Your task to perform on an android device: turn off smart reply in the gmail app Image 0: 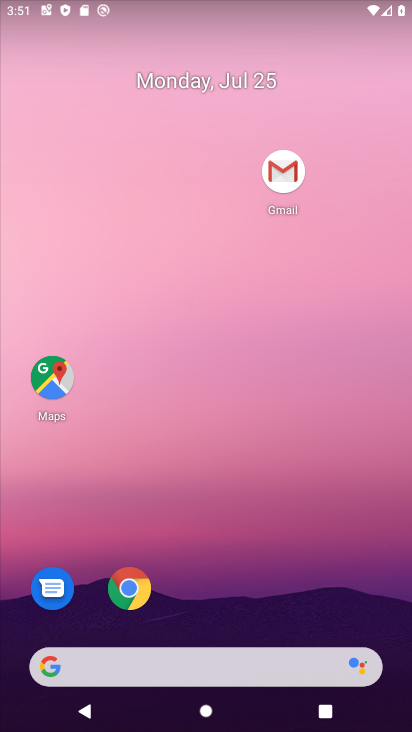
Step 0: drag from (312, 453) to (300, 55)
Your task to perform on an android device: turn off smart reply in the gmail app Image 1: 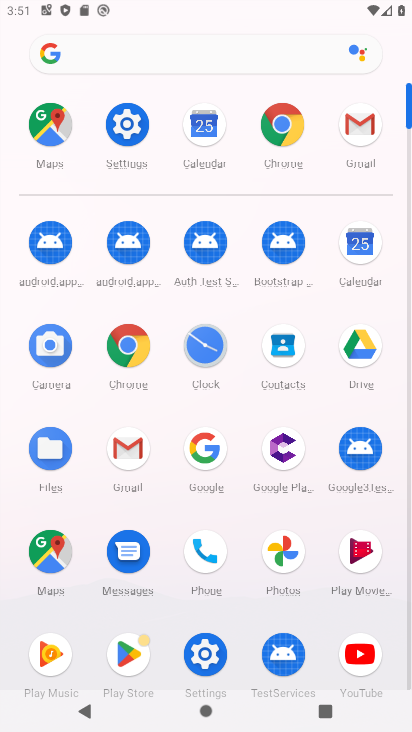
Step 1: click (361, 134)
Your task to perform on an android device: turn off smart reply in the gmail app Image 2: 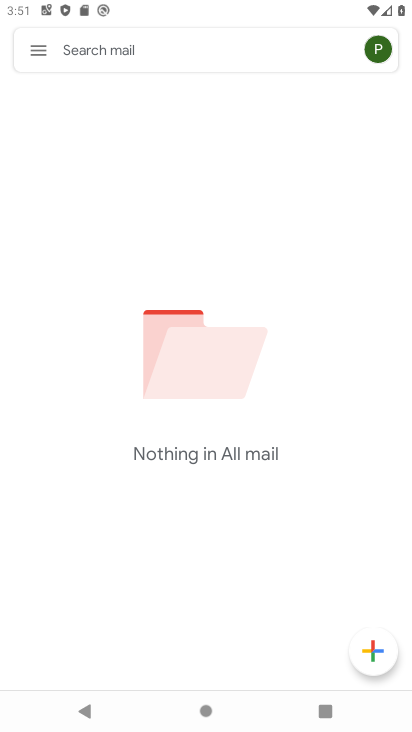
Step 2: click (44, 51)
Your task to perform on an android device: turn off smart reply in the gmail app Image 3: 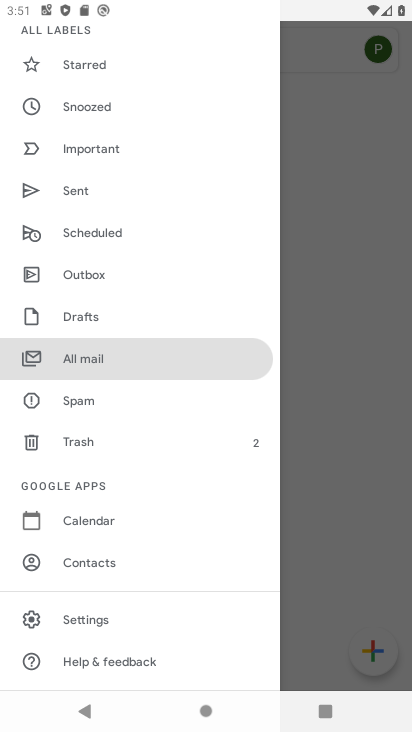
Step 3: click (111, 626)
Your task to perform on an android device: turn off smart reply in the gmail app Image 4: 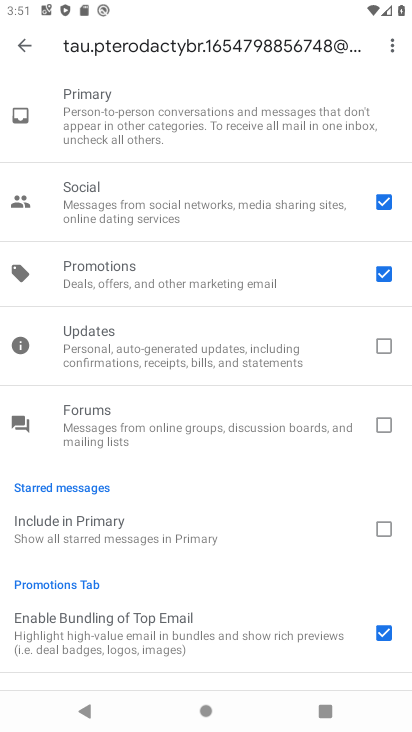
Step 4: drag from (243, 294) to (268, 206)
Your task to perform on an android device: turn off smart reply in the gmail app Image 5: 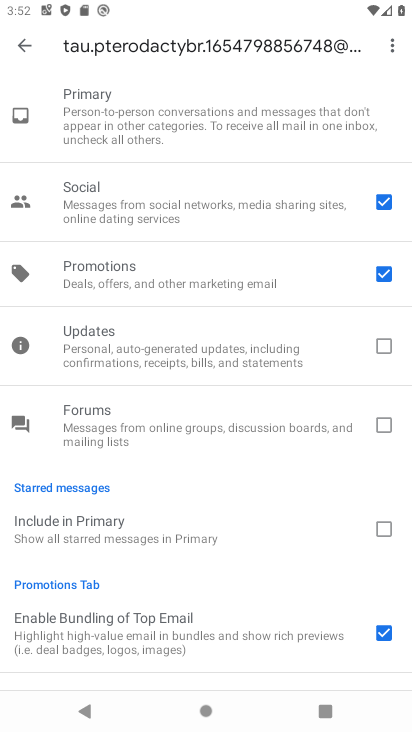
Step 5: click (22, 44)
Your task to perform on an android device: turn off smart reply in the gmail app Image 6: 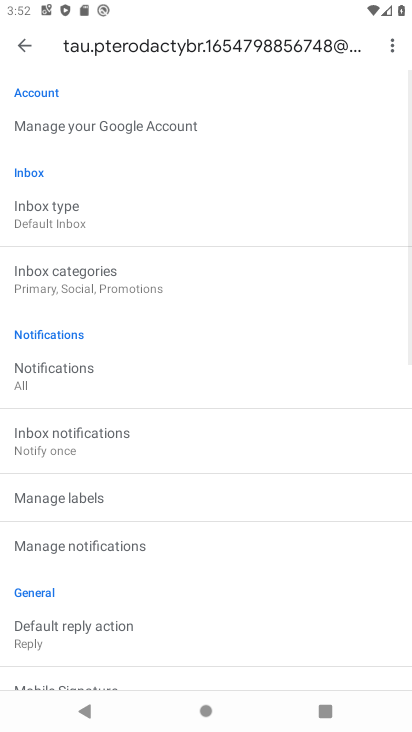
Step 6: drag from (244, 574) to (300, 72)
Your task to perform on an android device: turn off smart reply in the gmail app Image 7: 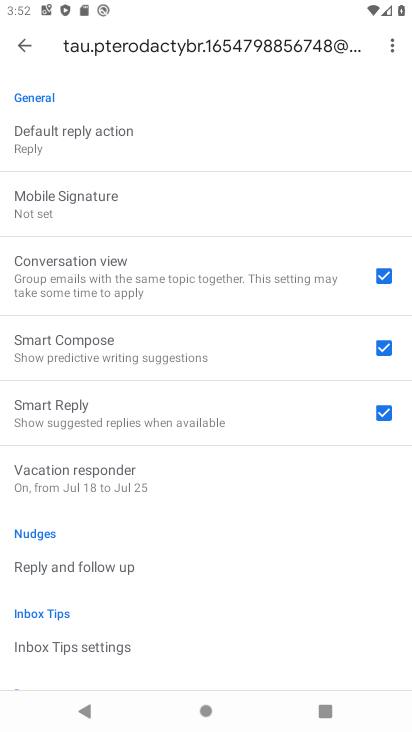
Step 7: click (390, 411)
Your task to perform on an android device: turn off smart reply in the gmail app Image 8: 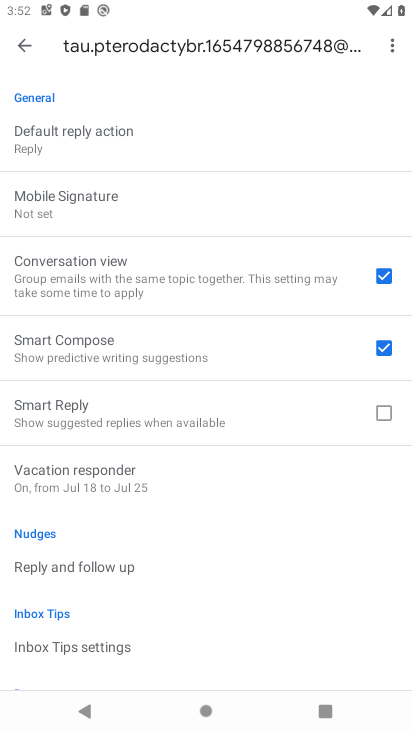
Step 8: task complete